Your task to perform on an android device: allow cookies in the chrome app Image 0: 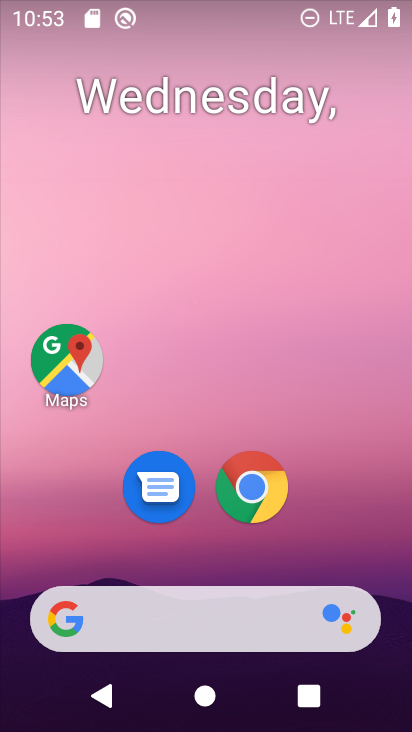
Step 0: click (248, 484)
Your task to perform on an android device: allow cookies in the chrome app Image 1: 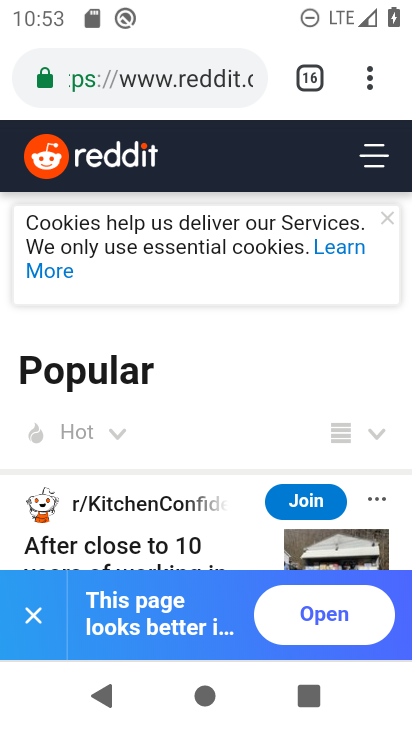
Step 1: click (371, 76)
Your task to perform on an android device: allow cookies in the chrome app Image 2: 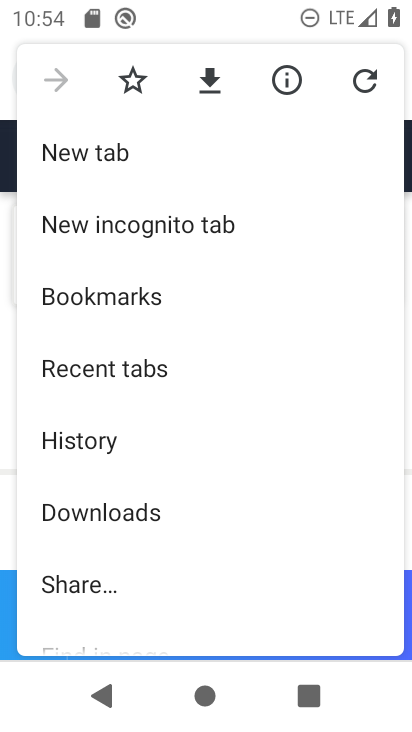
Step 2: drag from (177, 507) to (125, 216)
Your task to perform on an android device: allow cookies in the chrome app Image 3: 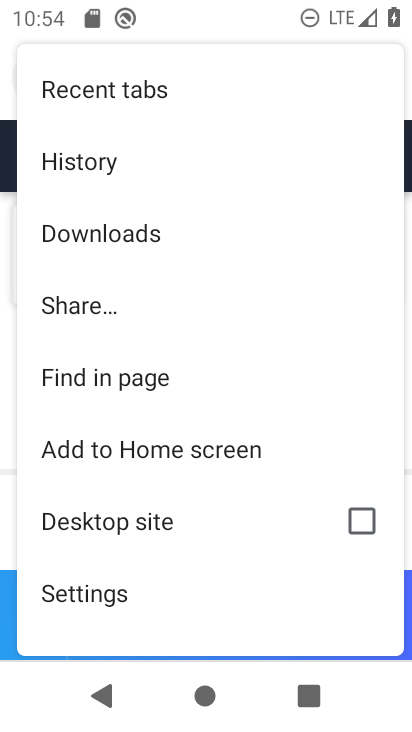
Step 3: click (78, 596)
Your task to perform on an android device: allow cookies in the chrome app Image 4: 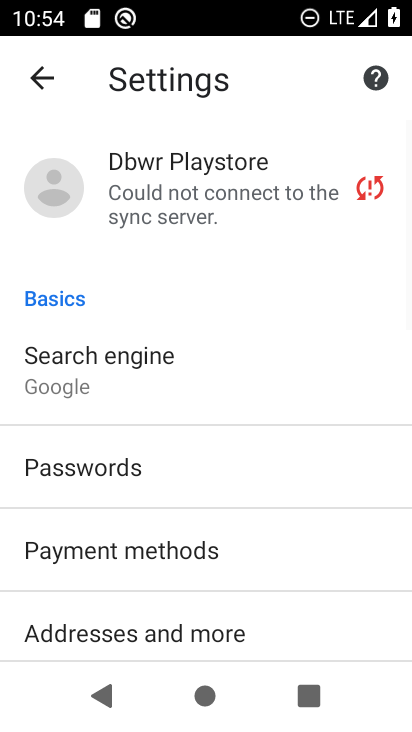
Step 4: drag from (198, 552) to (163, 239)
Your task to perform on an android device: allow cookies in the chrome app Image 5: 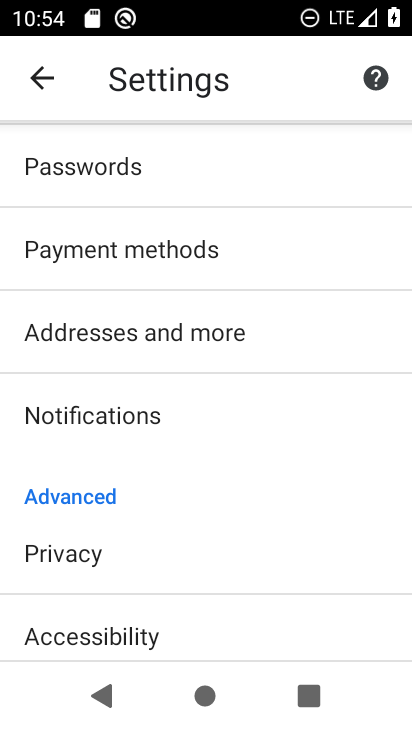
Step 5: drag from (272, 484) to (249, 187)
Your task to perform on an android device: allow cookies in the chrome app Image 6: 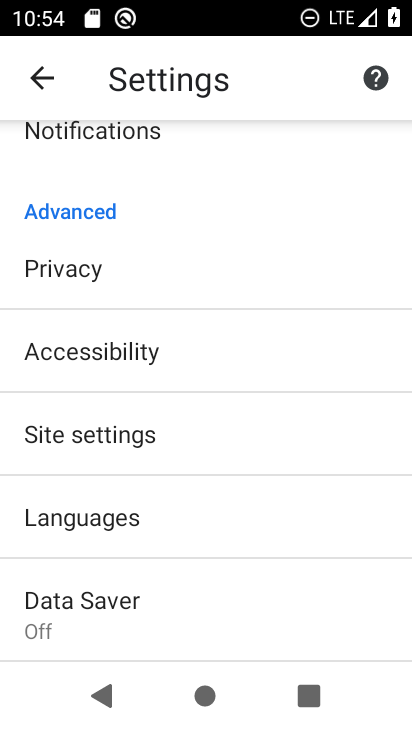
Step 6: drag from (204, 483) to (202, 221)
Your task to perform on an android device: allow cookies in the chrome app Image 7: 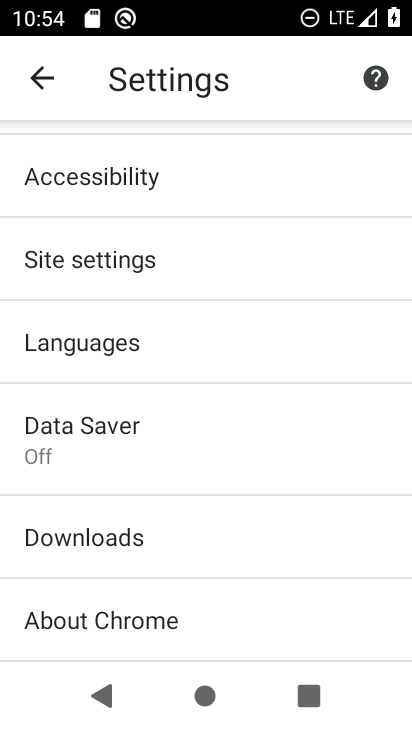
Step 7: click (79, 257)
Your task to perform on an android device: allow cookies in the chrome app Image 8: 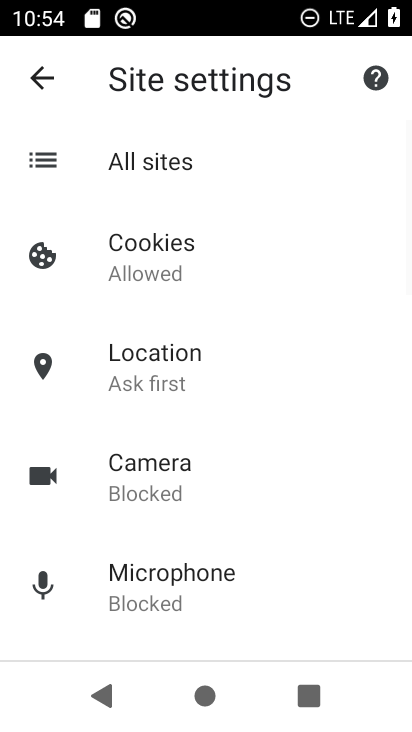
Step 8: click (156, 230)
Your task to perform on an android device: allow cookies in the chrome app Image 9: 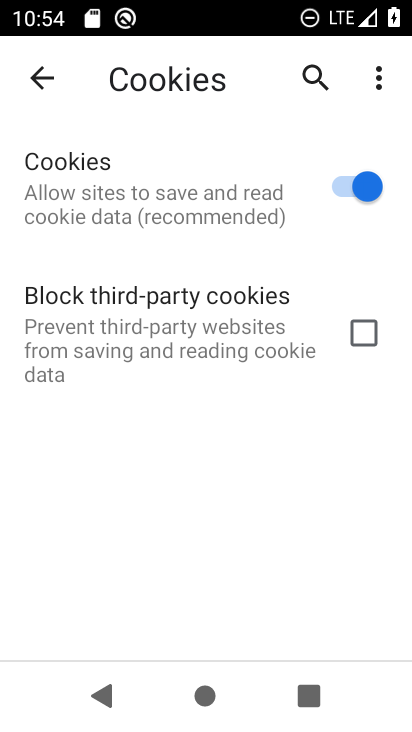
Step 9: task complete